Your task to perform on an android device: toggle location history Image 0: 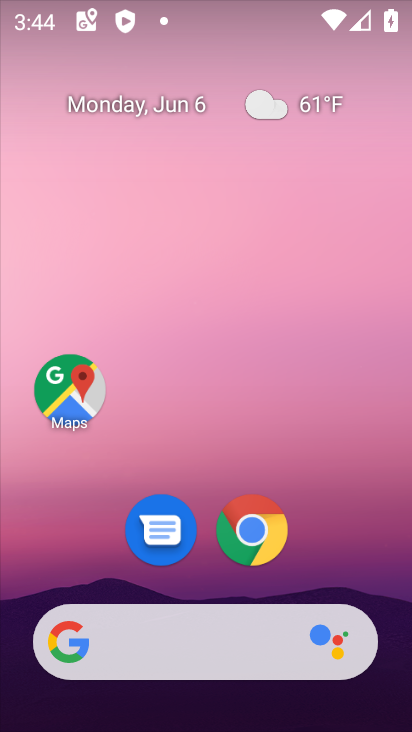
Step 0: drag from (318, 563) to (313, 125)
Your task to perform on an android device: toggle location history Image 1: 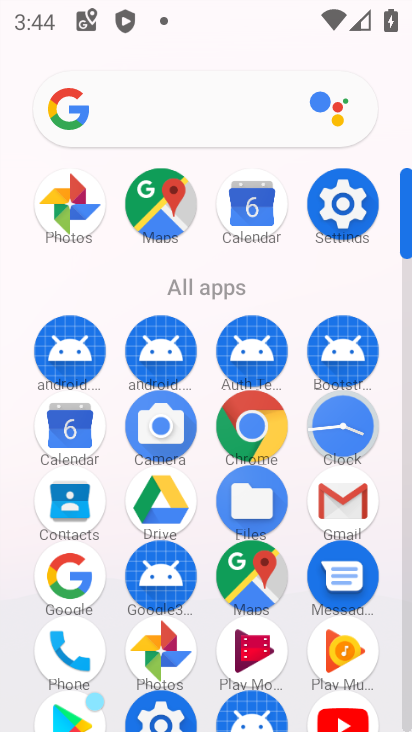
Step 1: click (359, 213)
Your task to perform on an android device: toggle location history Image 2: 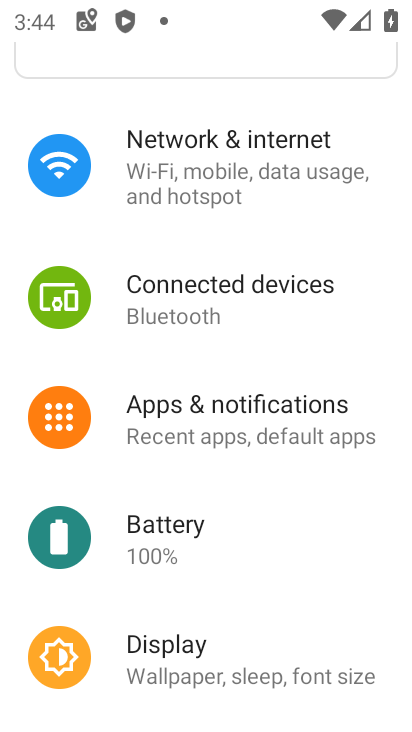
Step 2: drag from (280, 602) to (295, 204)
Your task to perform on an android device: toggle location history Image 3: 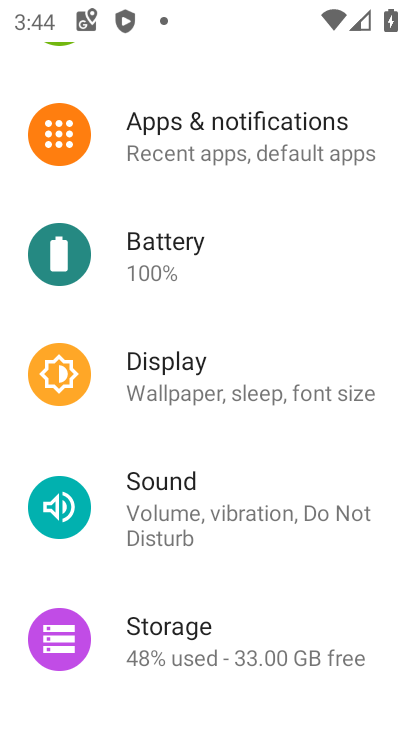
Step 3: drag from (291, 616) to (282, 244)
Your task to perform on an android device: toggle location history Image 4: 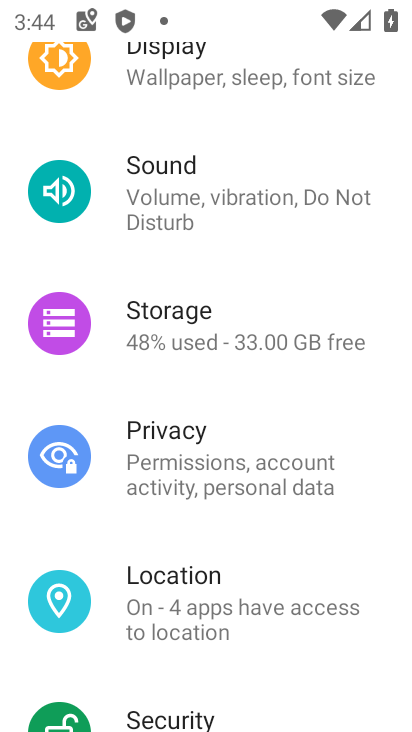
Step 4: click (289, 611)
Your task to perform on an android device: toggle location history Image 5: 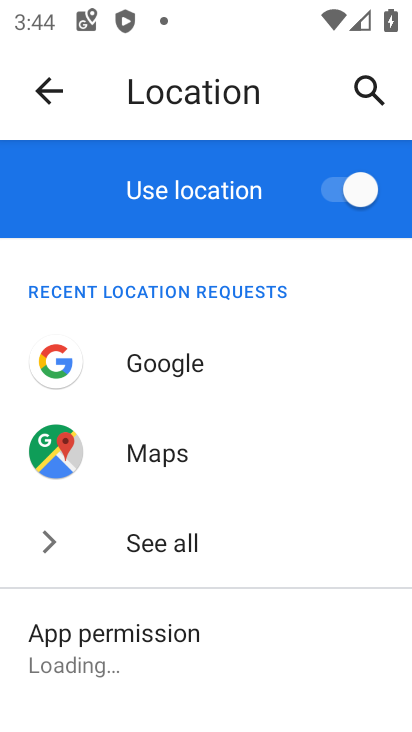
Step 5: drag from (328, 675) to (303, 375)
Your task to perform on an android device: toggle location history Image 6: 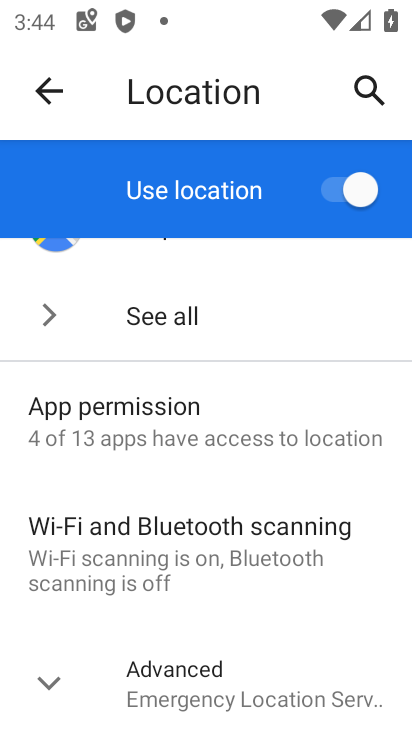
Step 6: click (249, 675)
Your task to perform on an android device: toggle location history Image 7: 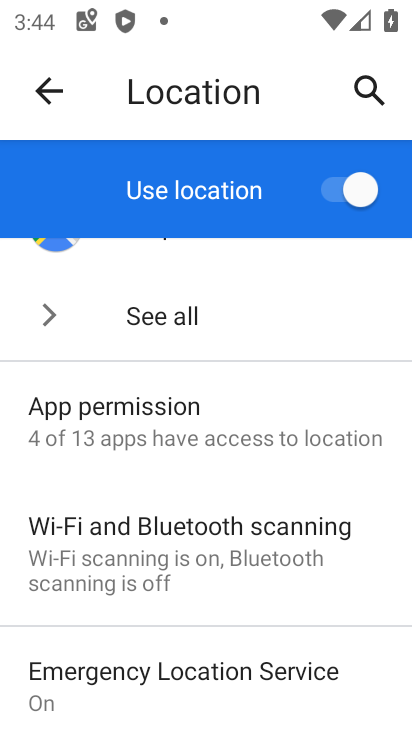
Step 7: drag from (249, 675) to (265, 285)
Your task to perform on an android device: toggle location history Image 8: 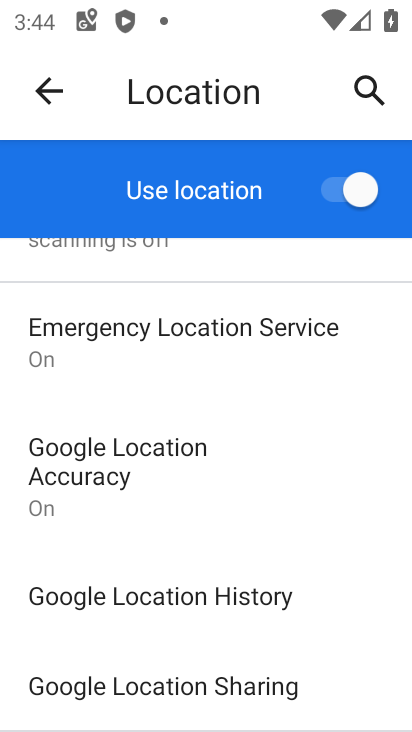
Step 8: click (243, 590)
Your task to perform on an android device: toggle location history Image 9: 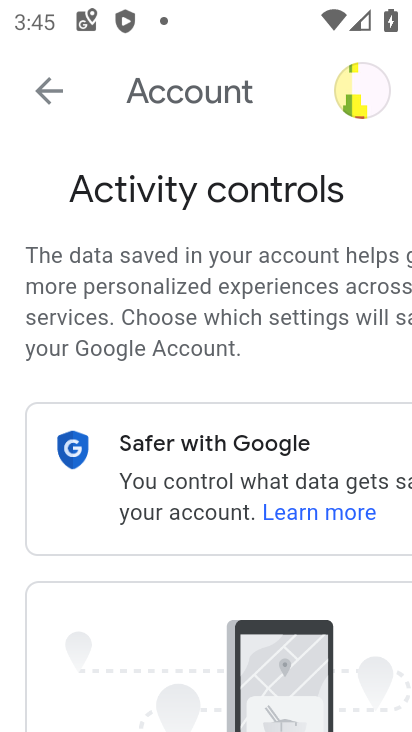
Step 9: drag from (304, 587) to (272, 195)
Your task to perform on an android device: toggle location history Image 10: 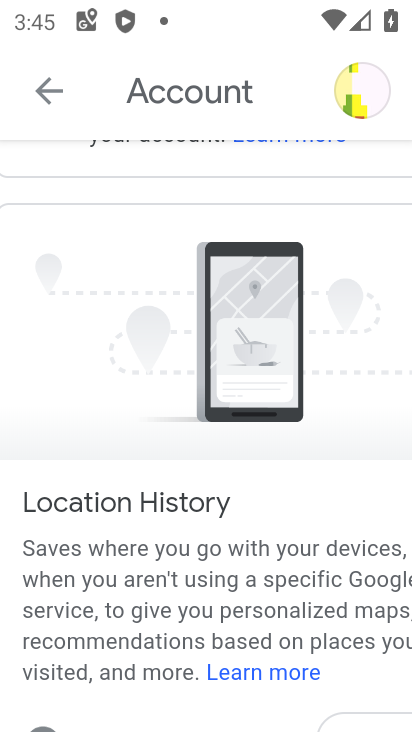
Step 10: drag from (340, 559) to (269, 112)
Your task to perform on an android device: toggle location history Image 11: 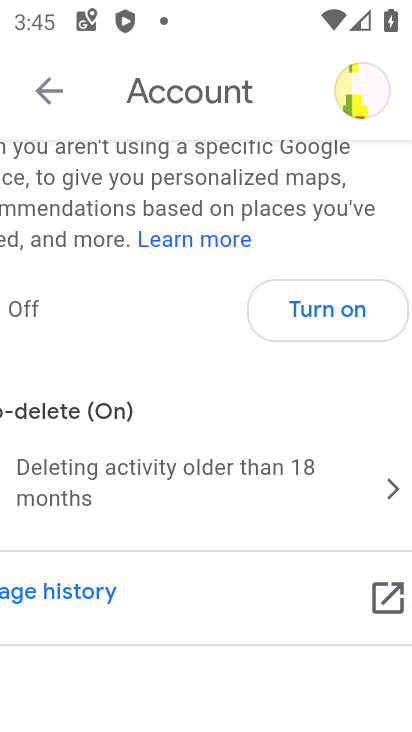
Step 11: click (315, 310)
Your task to perform on an android device: toggle location history Image 12: 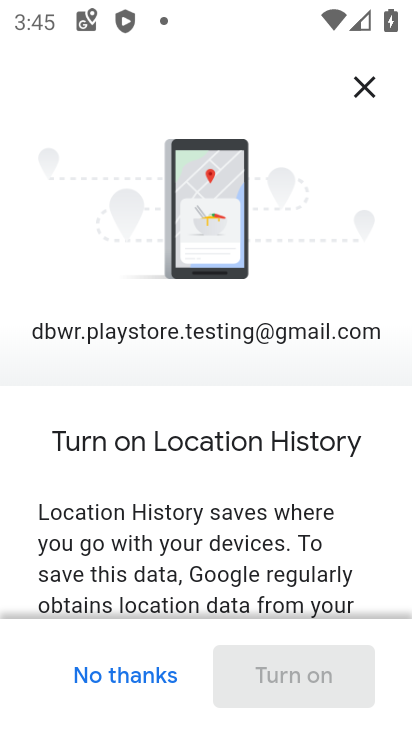
Step 12: drag from (341, 554) to (207, 28)
Your task to perform on an android device: toggle location history Image 13: 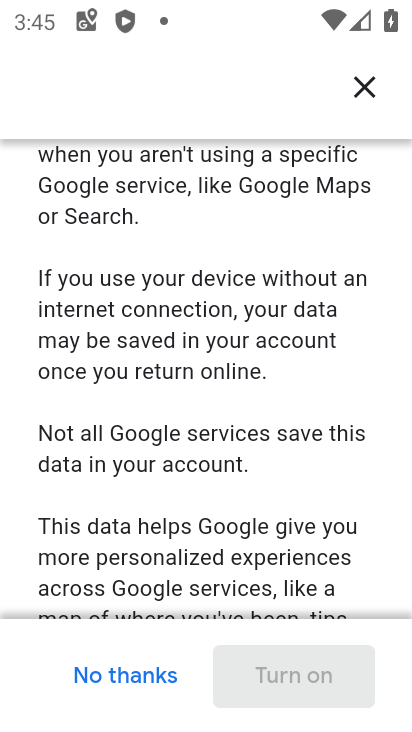
Step 13: drag from (279, 485) to (205, 111)
Your task to perform on an android device: toggle location history Image 14: 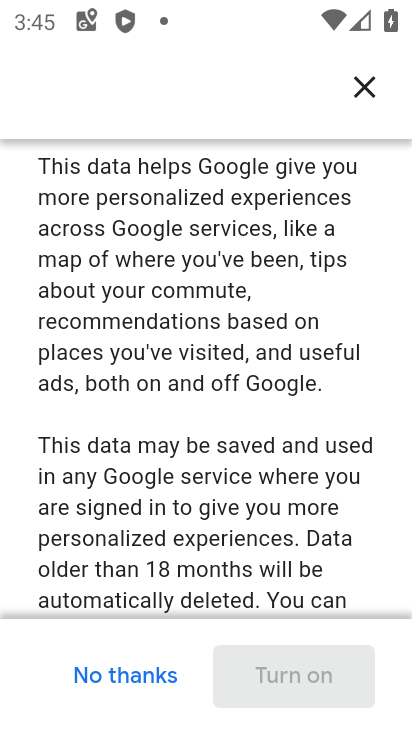
Step 14: drag from (260, 531) to (220, 63)
Your task to perform on an android device: toggle location history Image 15: 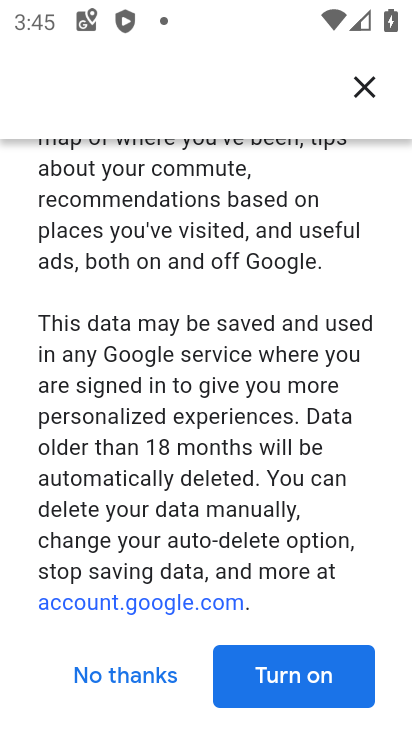
Step 15: click (301, 672)
Your task to perform on an android device: toggle location history Image 16: 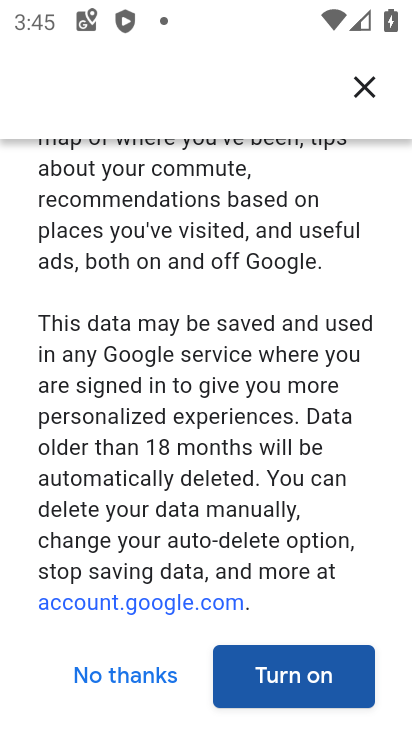
Step 16: click (354, 689)
Your task to perform on an android device: toggle location history Image 17: 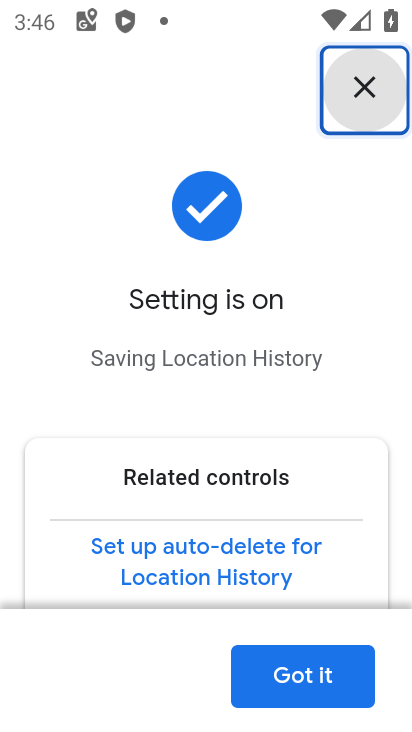
Step 17: click (350, 669)
Your task to perform on an android device: toggle location history Image 18: 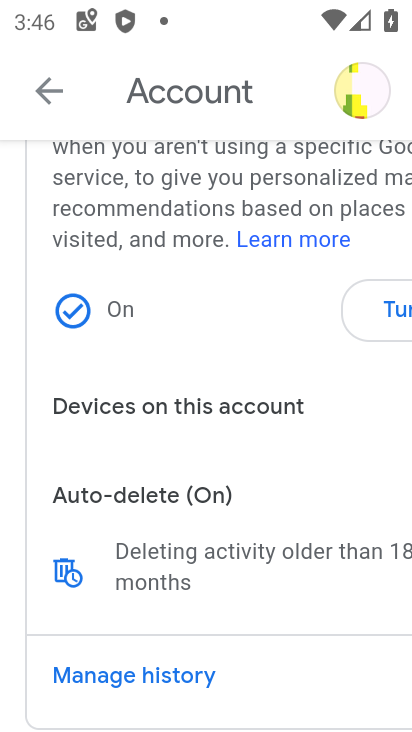
Step 18: task complete